Your task to perform on an android device: see sites visited before in the chrome app Image 0: 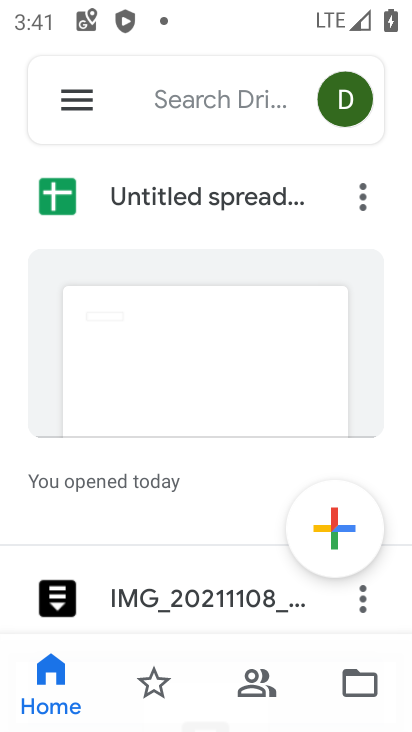
Step 0: press back button
Your task to perform on an android device: see sites visited before in the chrome app Image 1: 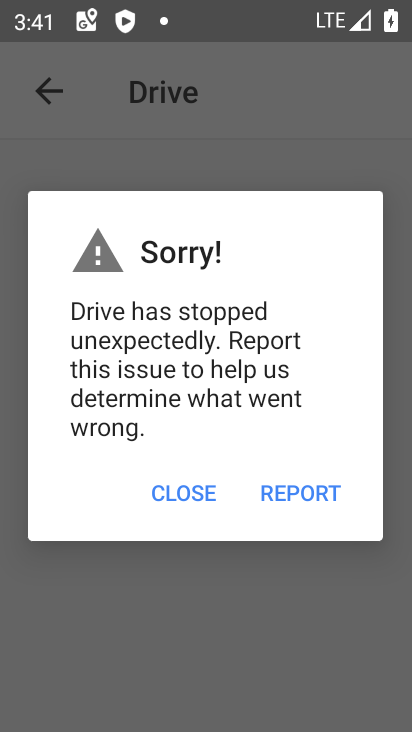
Step 1: press back button
Your task to perform on an android device: see sites visited before in the chrome app Image 2: 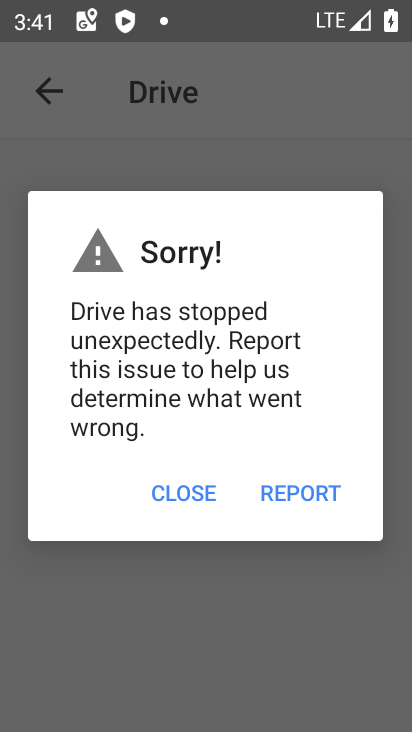
Step 2: press home button
Your task to perform on an android device: see sites visited before in the chrome app Image 3: 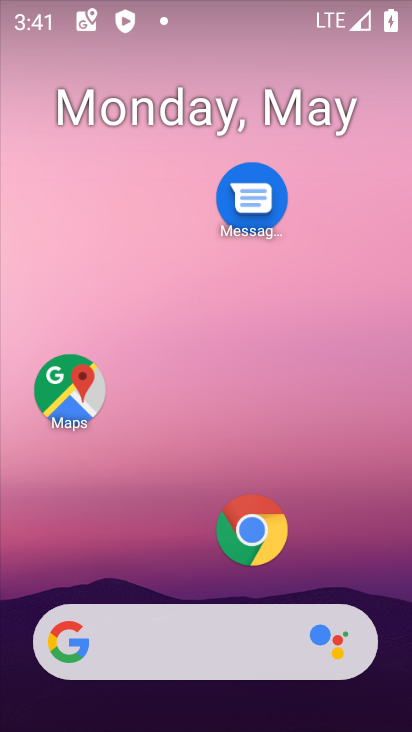
Step 3: click (259, 510)
Your task to perform on an android device: see sites visited before in the chrome app Image 4: 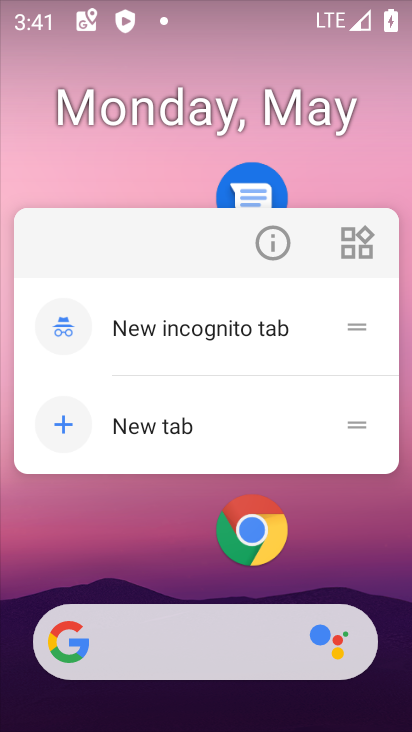
Step 4: click (247, 509)
Your task to perform on an android device: see sites visited before in the chrome app Image 5: 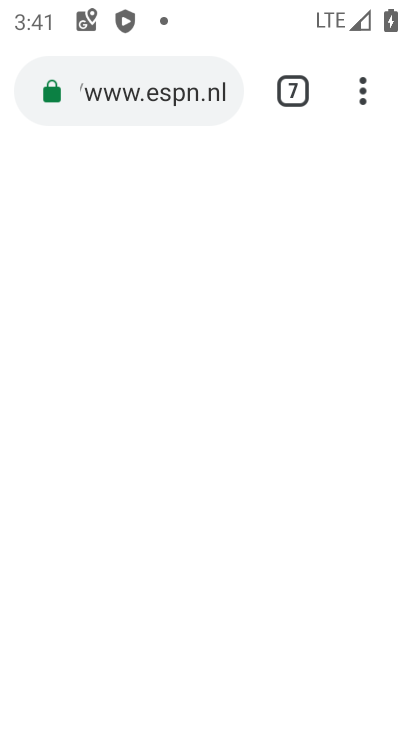
Step 5: task complete